Your task to perform on an android device: Clear the shopping cart on ebay. Search for "dell xps" on ebay, select the first entry, add it to the cart, then select checkout. Image 0: 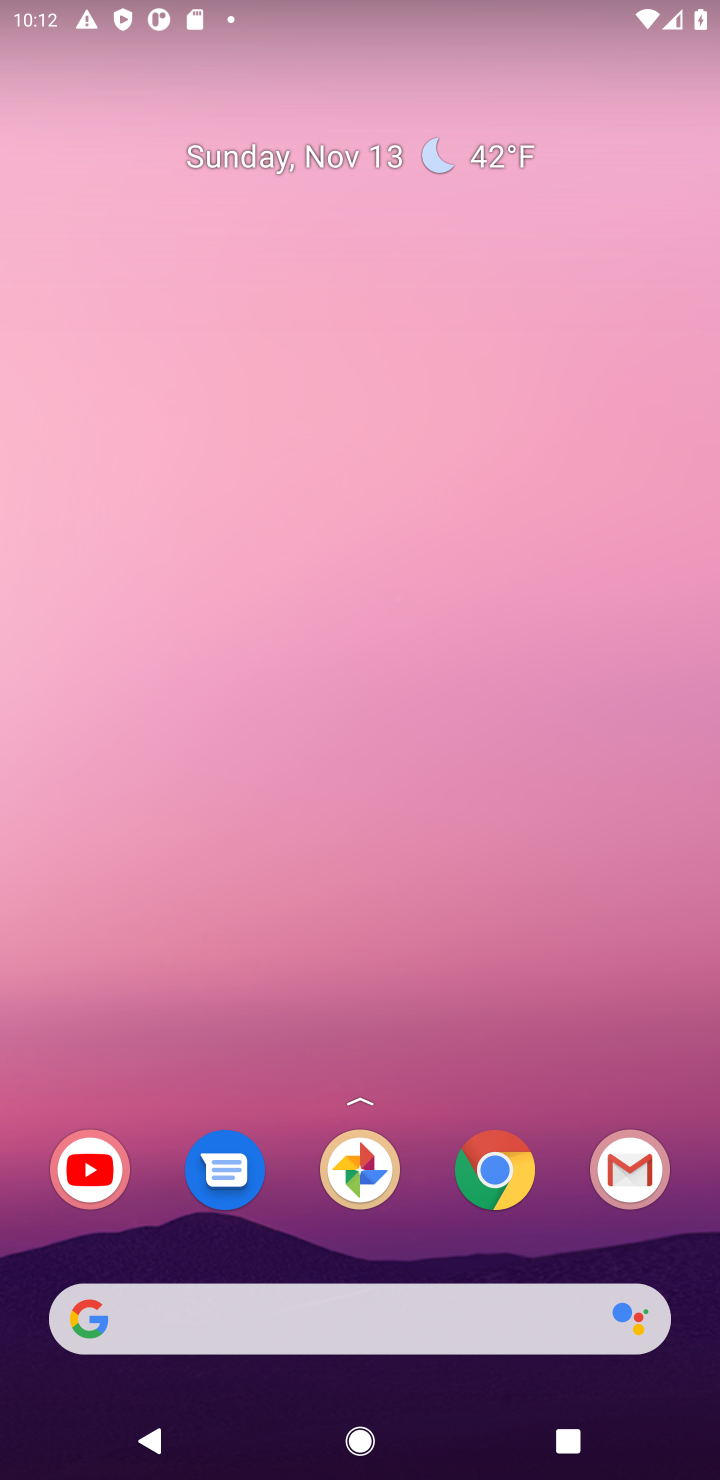
Step 0: drag from (289, 505) to (304, 21)
Your task to perform on an android device: Clear the shopping cart on ebay. Search for "dell xps" on ebay, select the first entry, add it to the cart, then select checkout. Image 1: 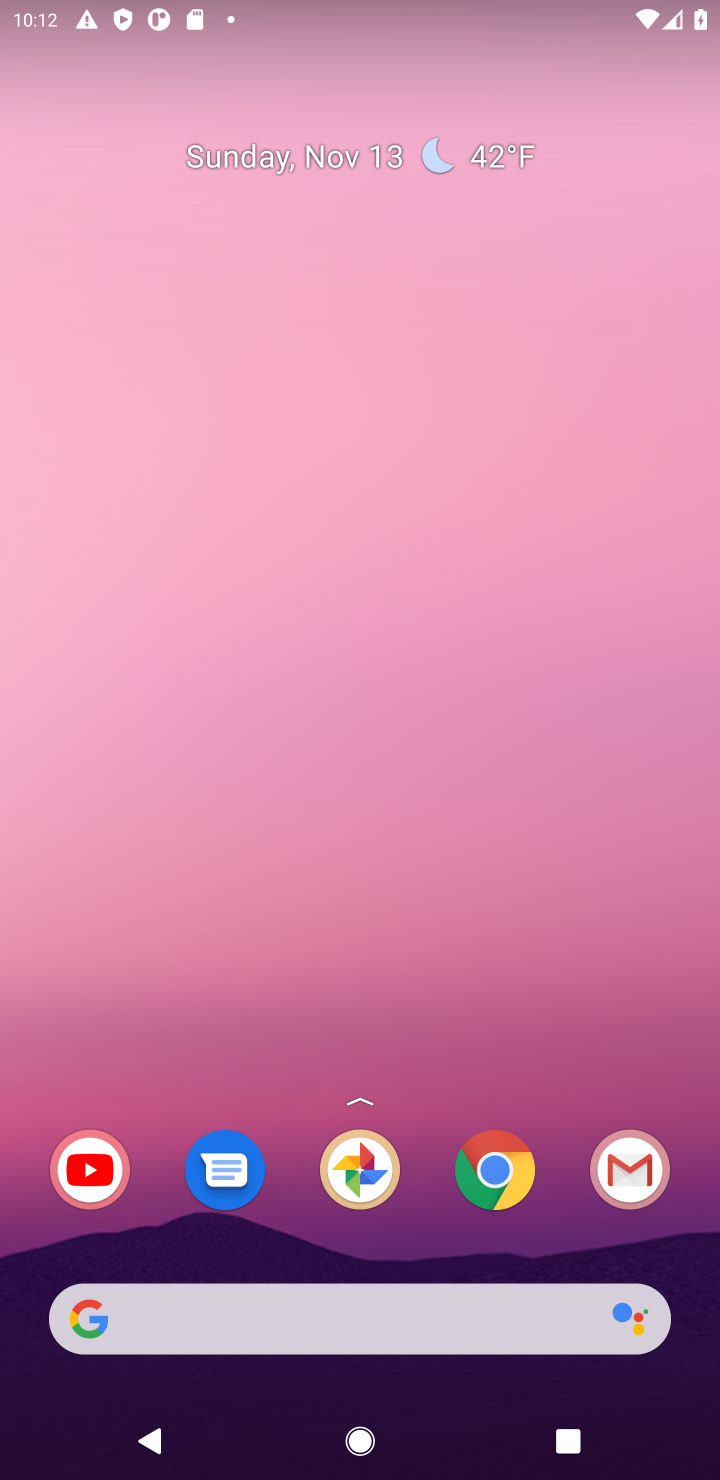
Step 1: drag from (354, 464) to (429, 3)
Your task to perform on an android device: Clear the shopping cart on ebay. Search for "dell xps" on ebay, select the first entry, add it to the cart, then select checkout. Image 2: 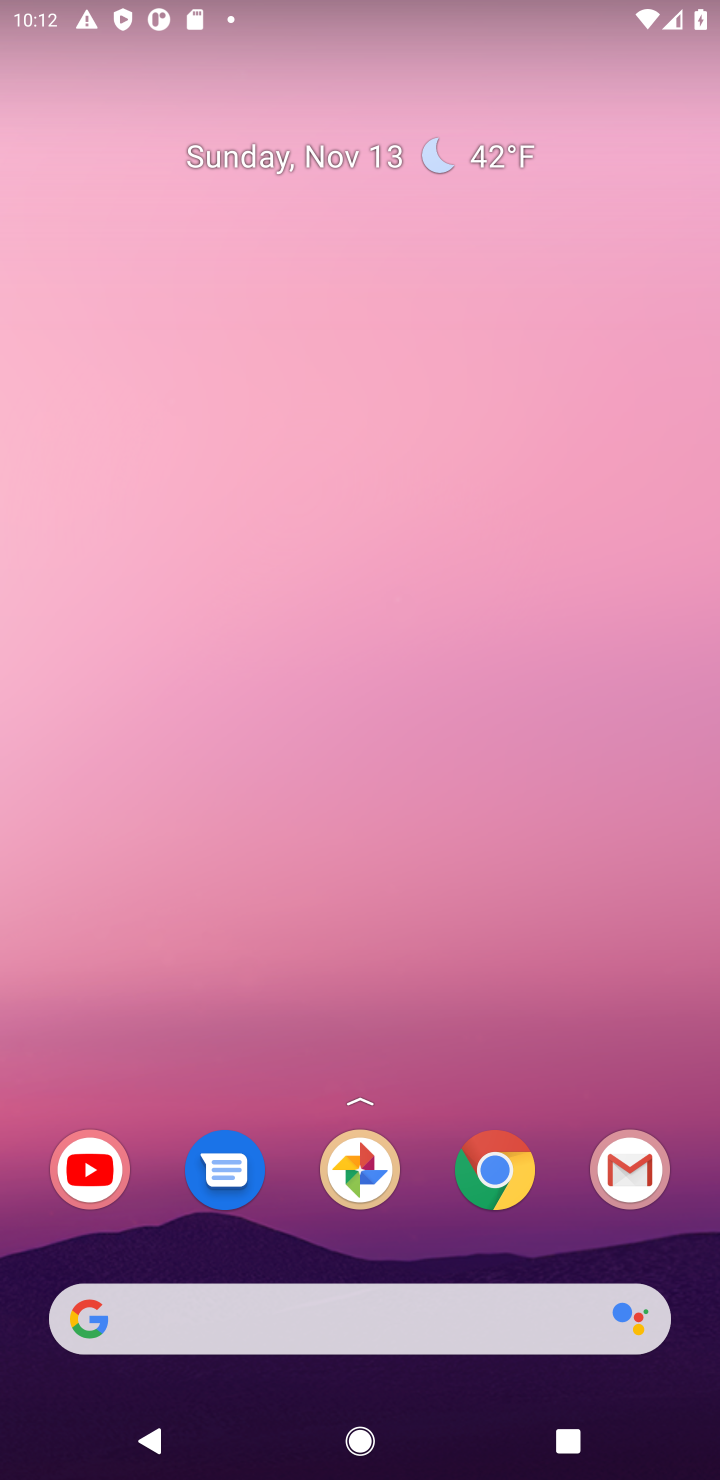
Step 2: drag from (348, 581) to (270, 4)
Your task to perform on an android device: Clear the shopping cart on ebay. Search for "dell xps" on ebay, select the first entry, add it to the cart, then select checkout. Image 3: 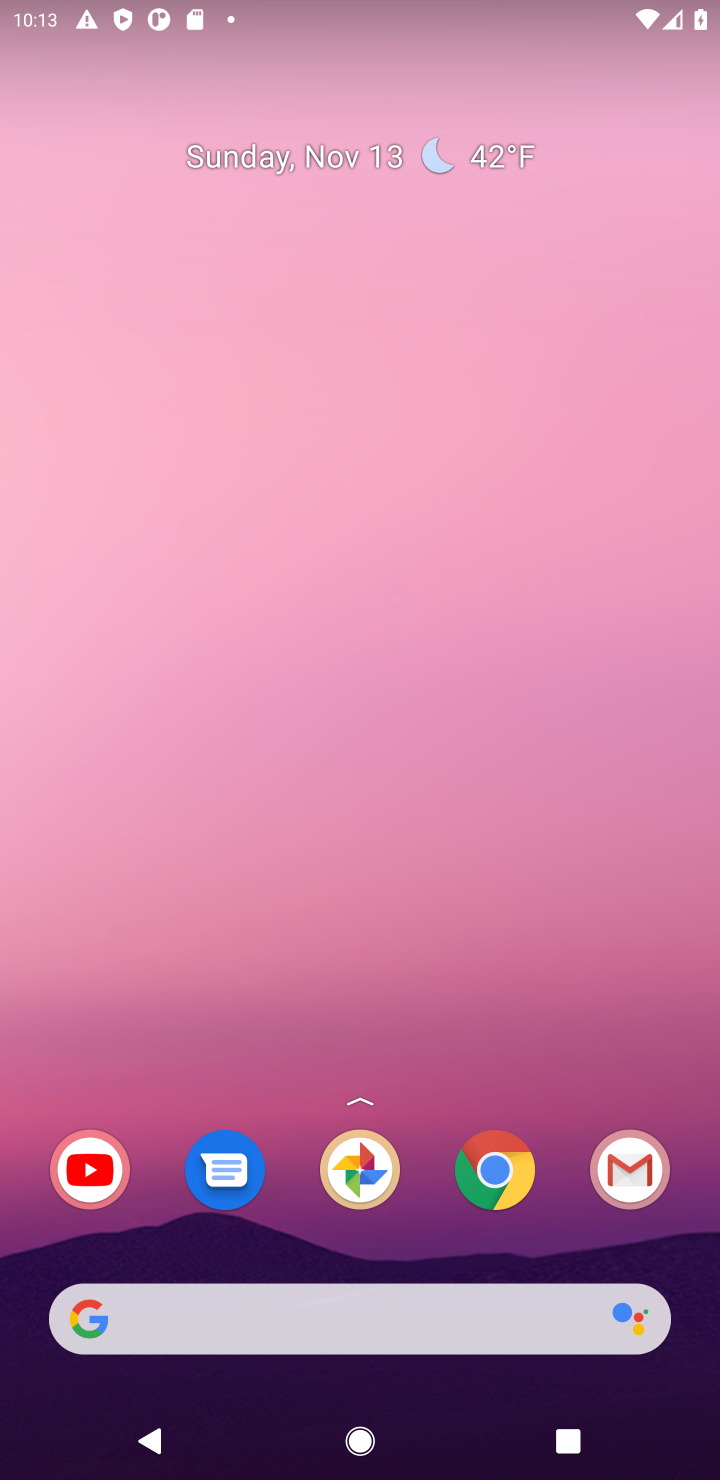
Step 3: drag from (249, 949) to (473, 4)
Your task to perform on an android device: Clear the shopping cart on ebay. Search for "dell xps" on ebay, select the first entry, add it to the cart, then select checkout. Image 4: 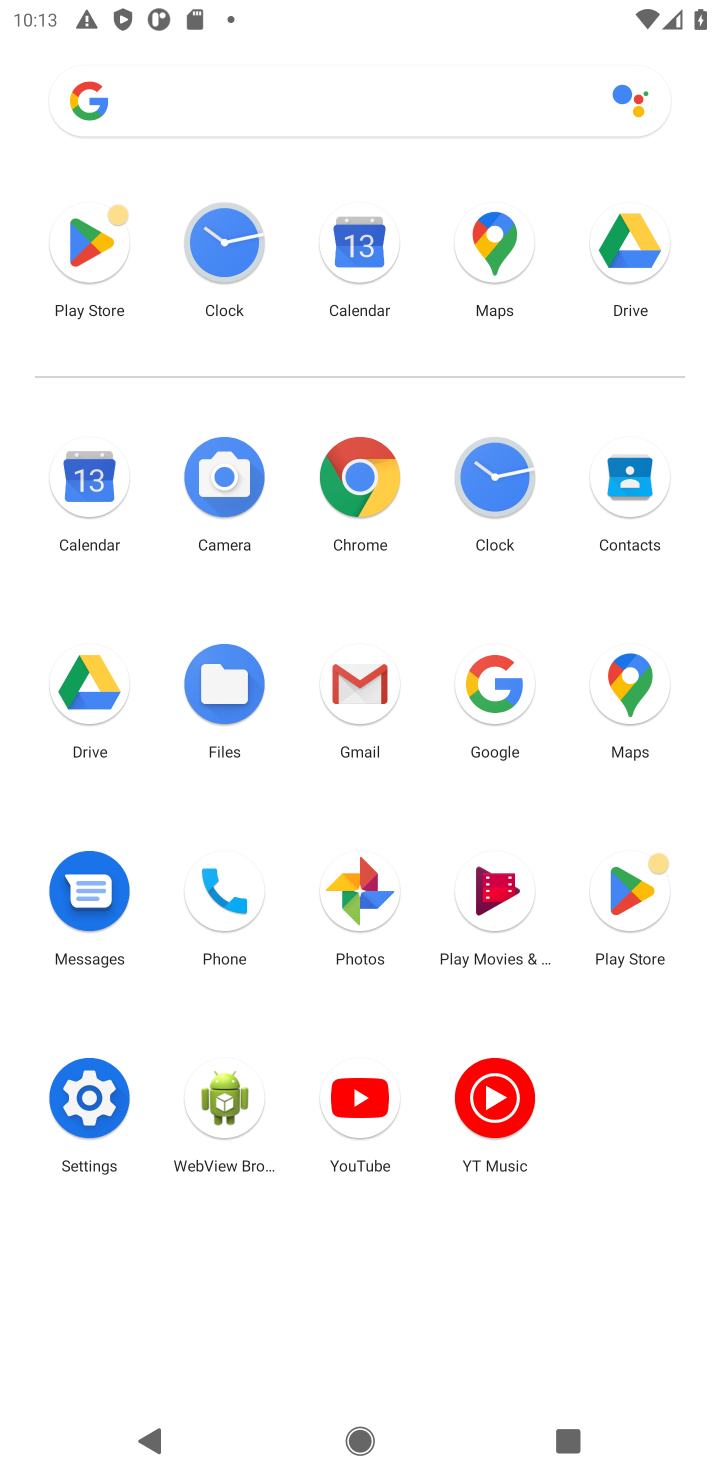
Step 4: click (358, 478)
Your task to perform on an android device: Clear the shopping cart on ebay. Search for "dell xps" on ebay, select the first entry, add it to the cart, then select checkout. Image 5: 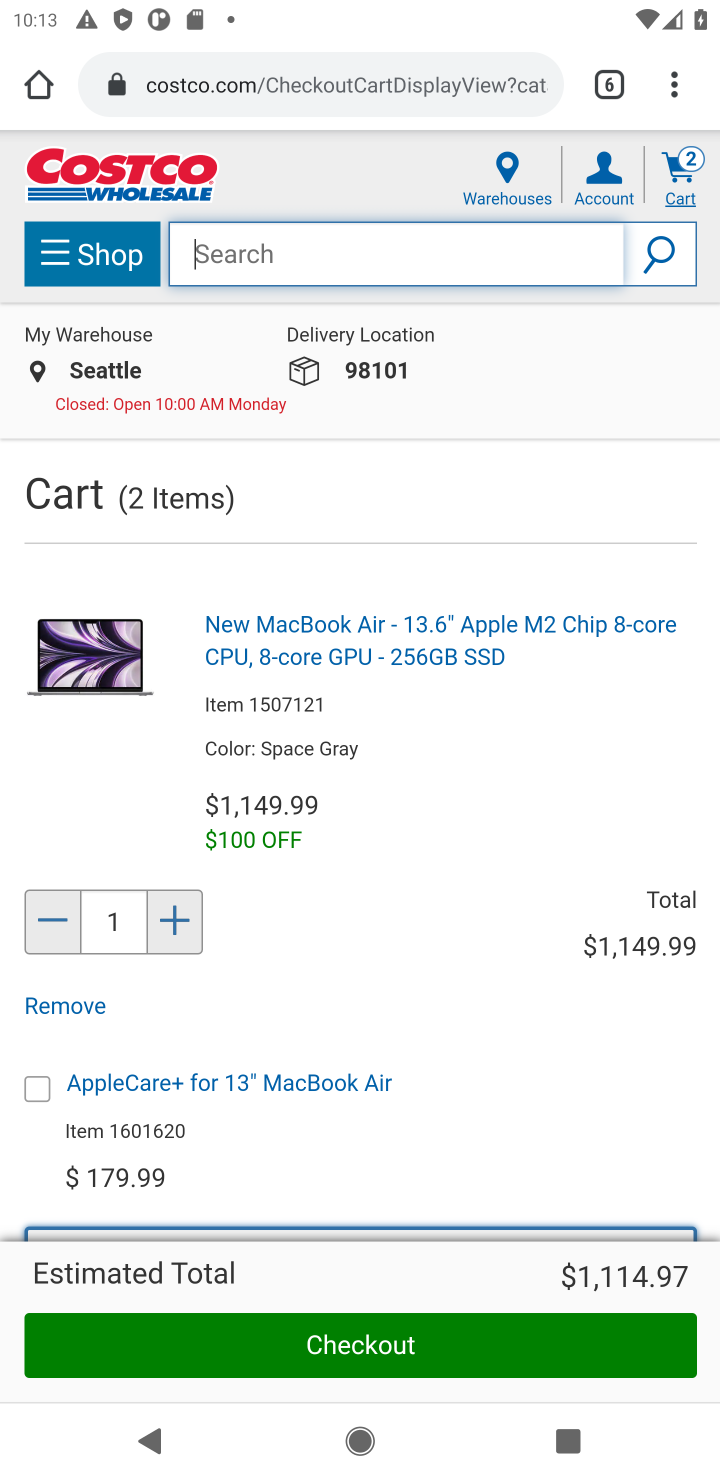
Step 5: click (400, 74)
Your task to perform on an android device: Clear the shopping cart on ebay. Search for "dell xps" on ebay, select the first entry, add it to the cart, then select checkout. Image 6: 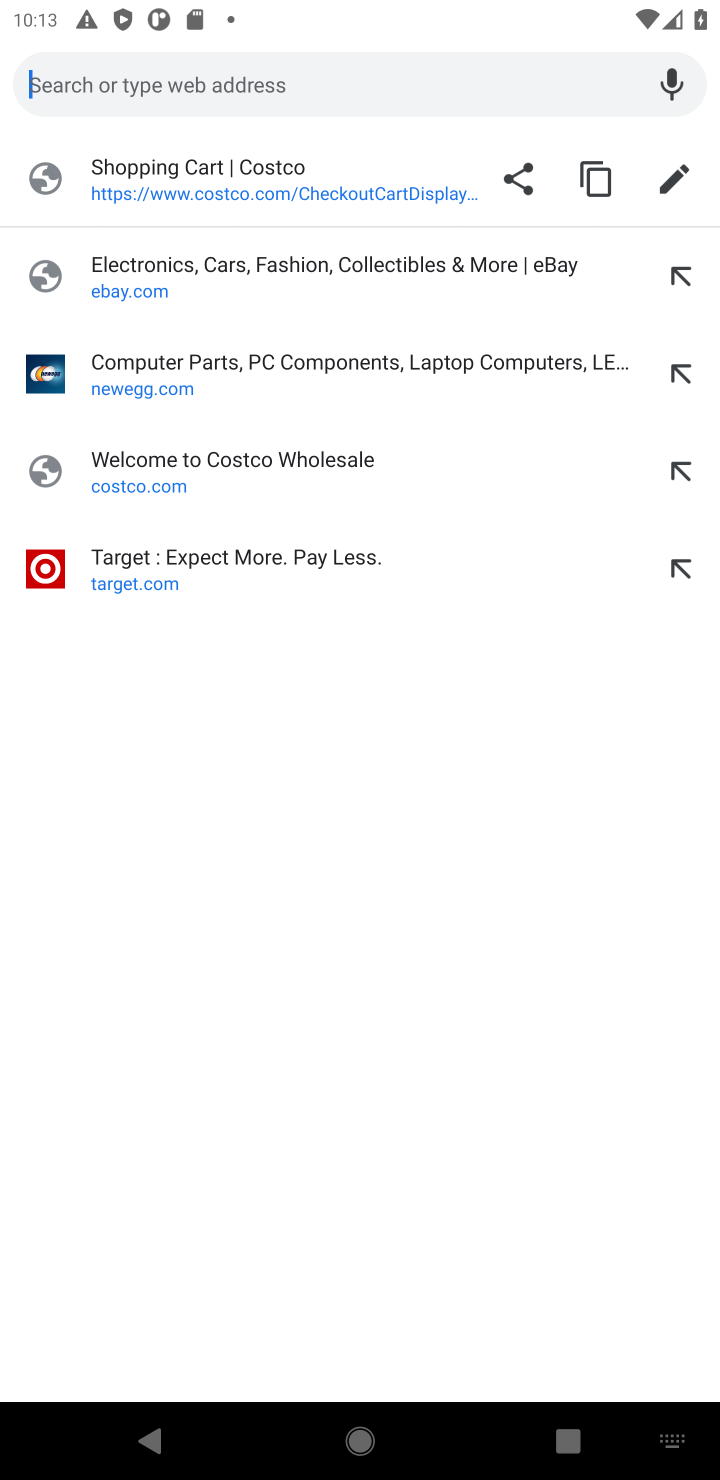
Step 6: press enter
Your task to perform on an android device: Clear the shopping cart on ebay. Search for "dell xps" on ebay, select the first entry, add it to the cart, then select checkout. Image 7: 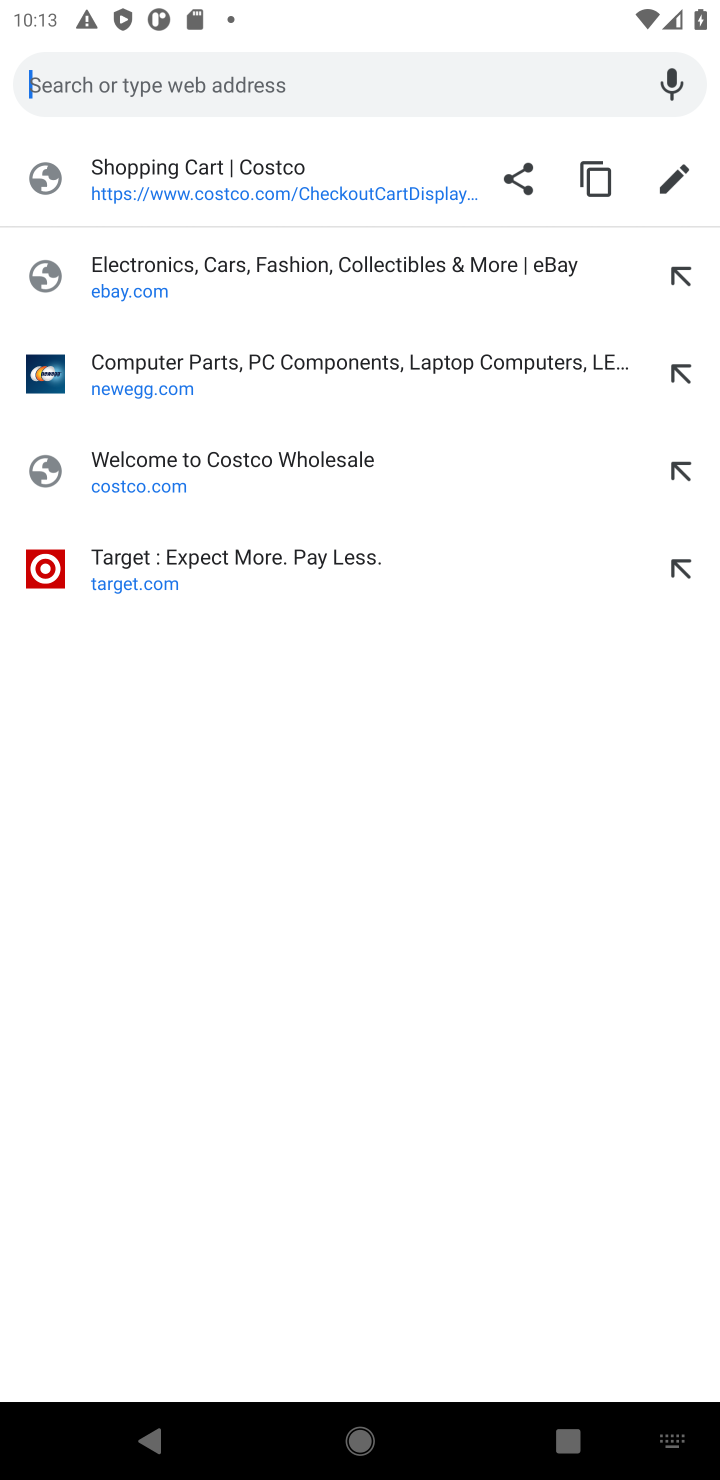
Step 7: type "ebay"
Your task to perform on an android device: Clear the shopping cart on ebay. Search for "dell xps" on ebay, select the first entry, add it to the cart, then select checkout. Image 8: 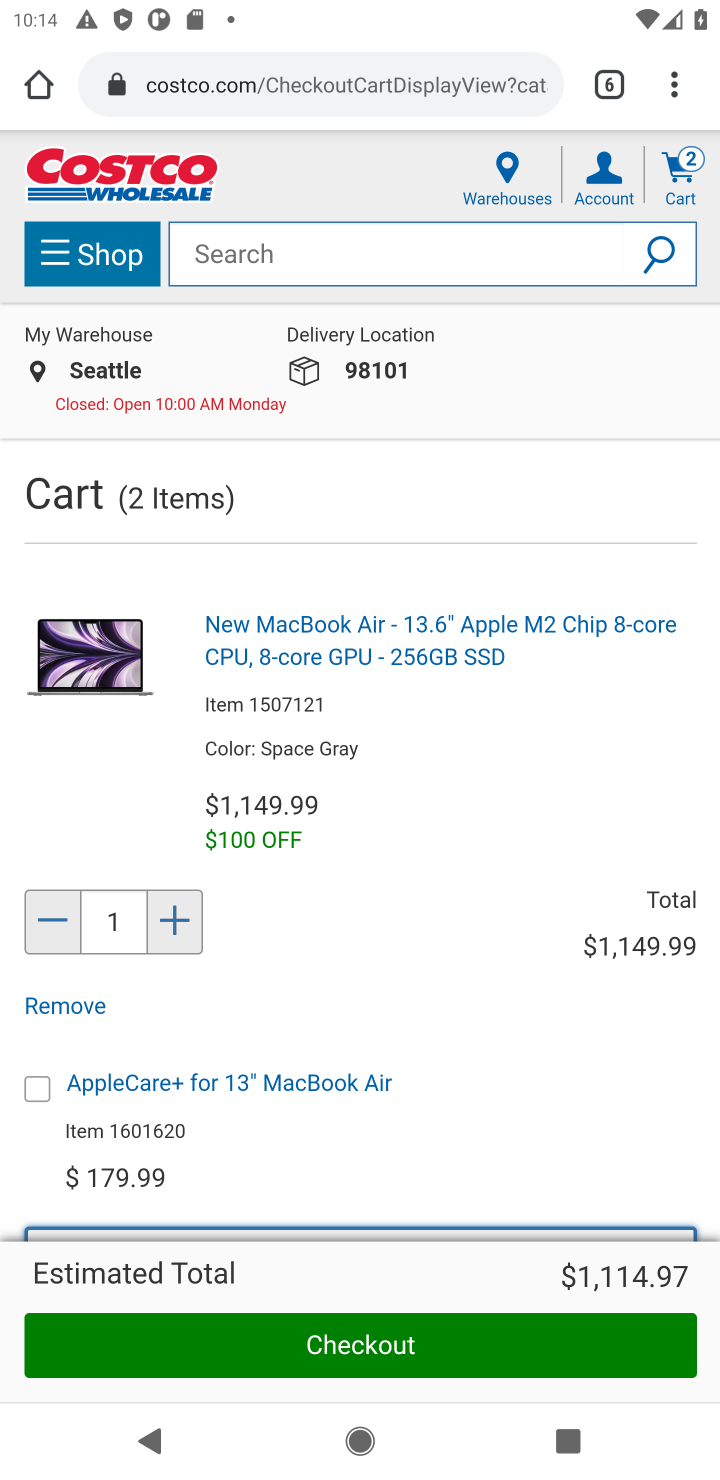
Step 8: click (337, 63)
Your task to perform on an android device: Clear the shopping cart on ebay. Search for "dell xps" on ebay, select the first entry, add it to the cart, then select checkout. Image 9: 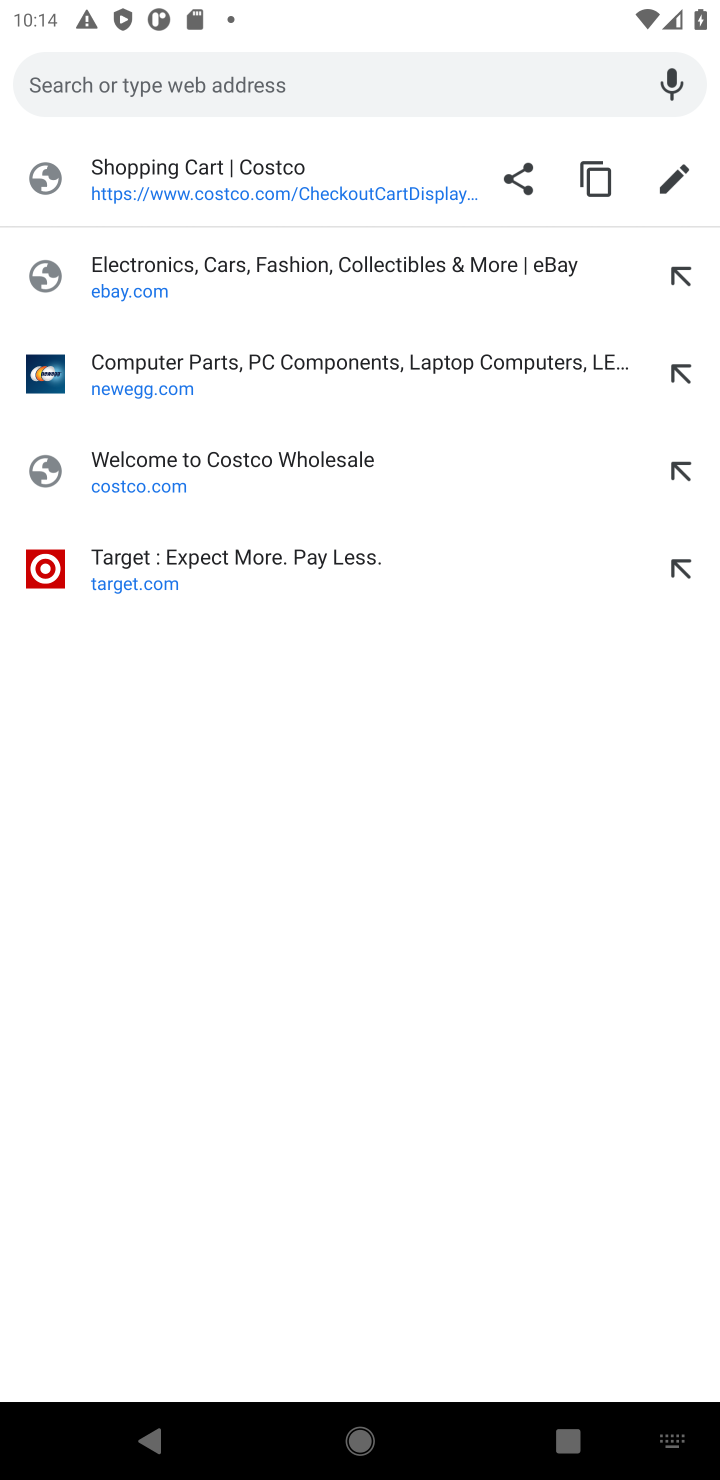
Step 9: type "ebay"
Your task to perform on an android device: Clear the shopping cart on ebay. Search for "dell xps" on ebay, select the first entry, add it to the cart, then select checkout. Image 10: 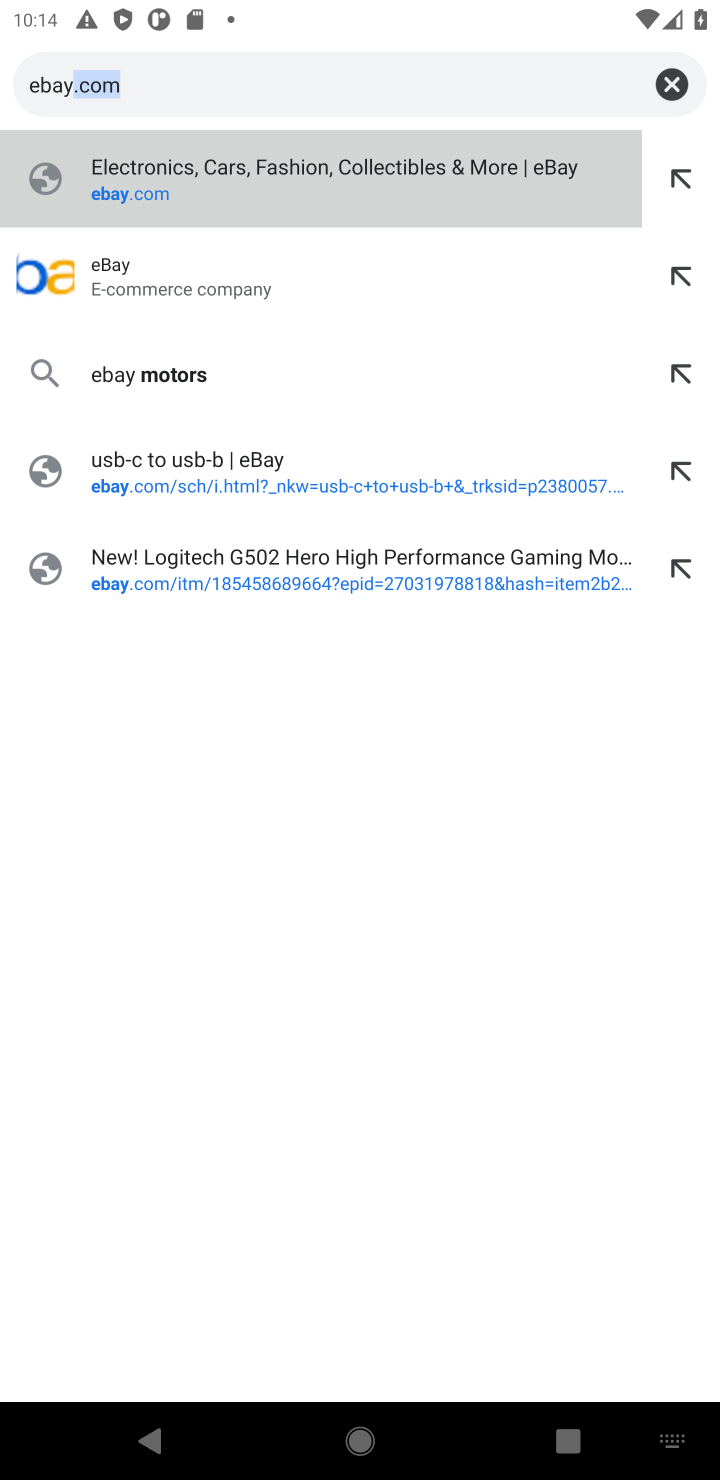
Step 10: press enter
Your task to perform on an android device: Clear the shopping cart on ebay. Search for "dell xps" on ebay, select the first entry, add it to the cart, then select checkout. Image 11: 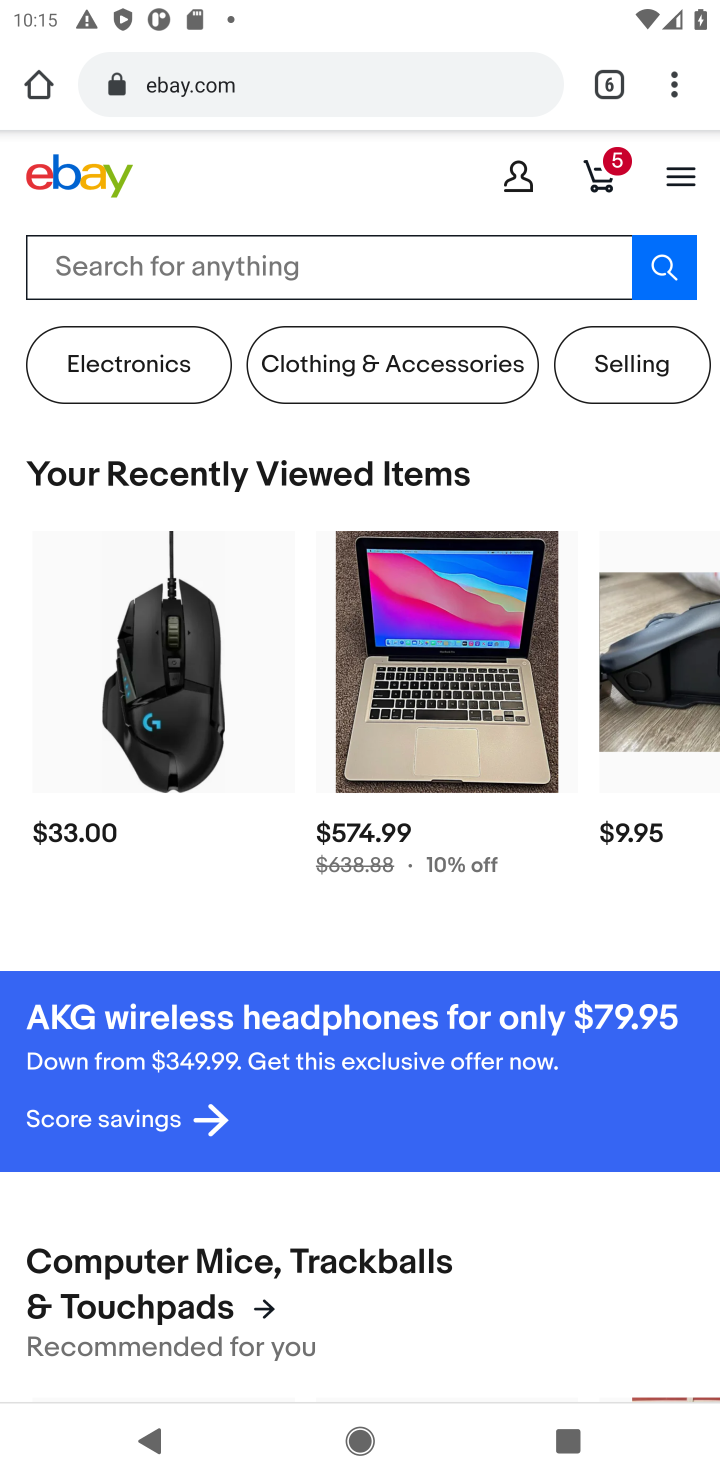
Step 11: click (145, 285)
Your task to perform on an android device: Clear the shopping cart on ebay. Search for "dell xps" on ebay, select the first entry, add it to the cart, then select checkout. Image 12: 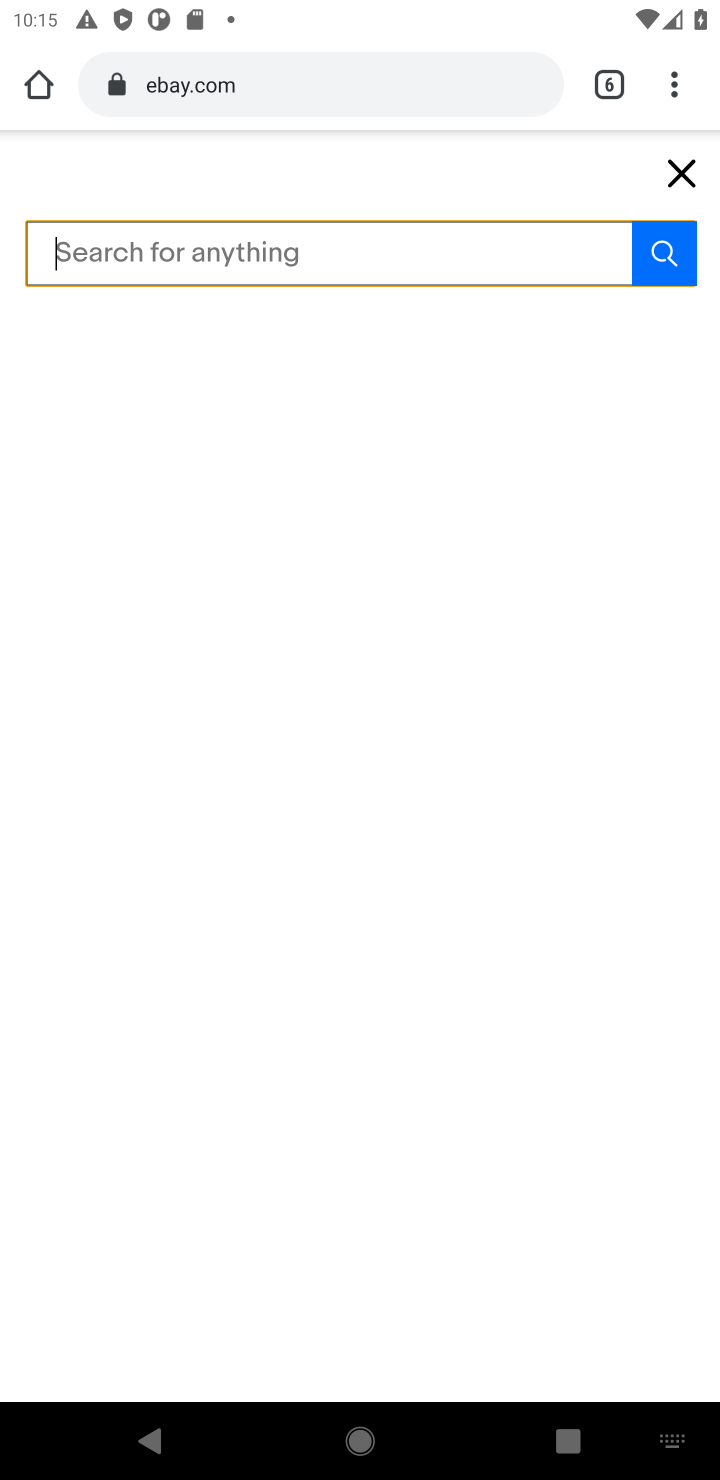
Step 12: type "dell xps"
Your task to perform on an android device: Clear the shopping cart on ebay. Search for "dell xps" on ebay, select the first entry, add it to the cart, then select checkout. Image 13: 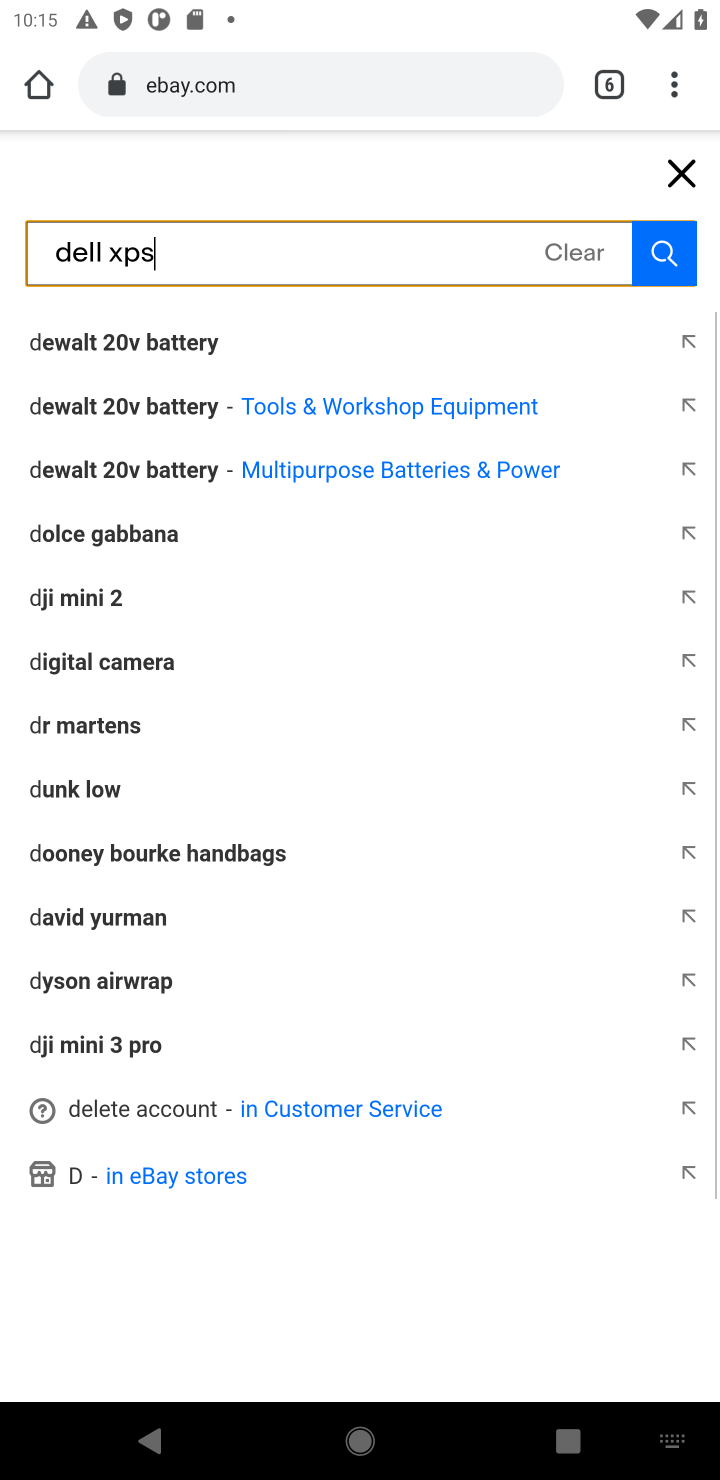
Step 13: press enter
Your task to perform on an android device: Clear the shopping cart on ebay. Search for "dell xps" on ebay, select the first entry, add it to the cart, then select checkout. Image 14: 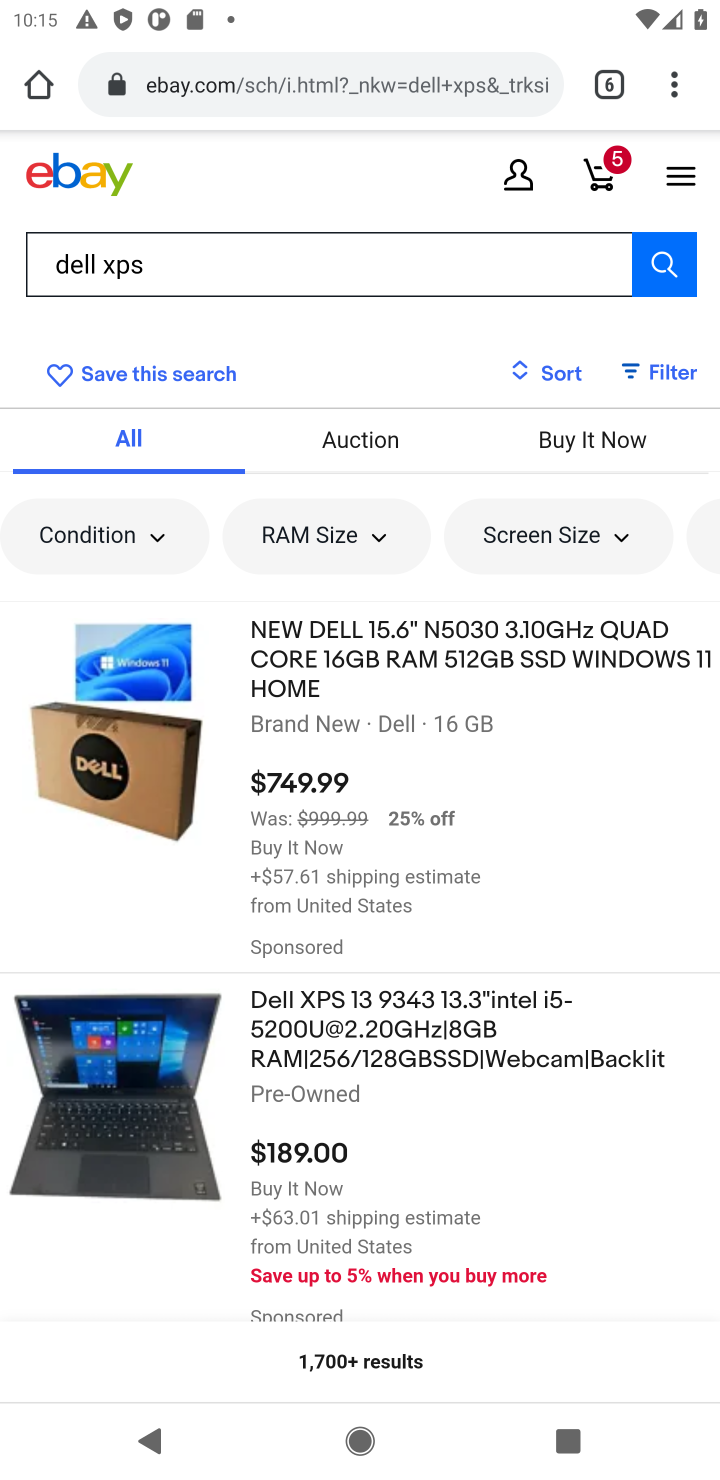
Step 14: click (418, 638)
Your task to perform on an android device: Clear the shopping cart on ebay. Search for "dell xps" on ebay, select the first entry, add it to the cart, then select checkout. Image 15: 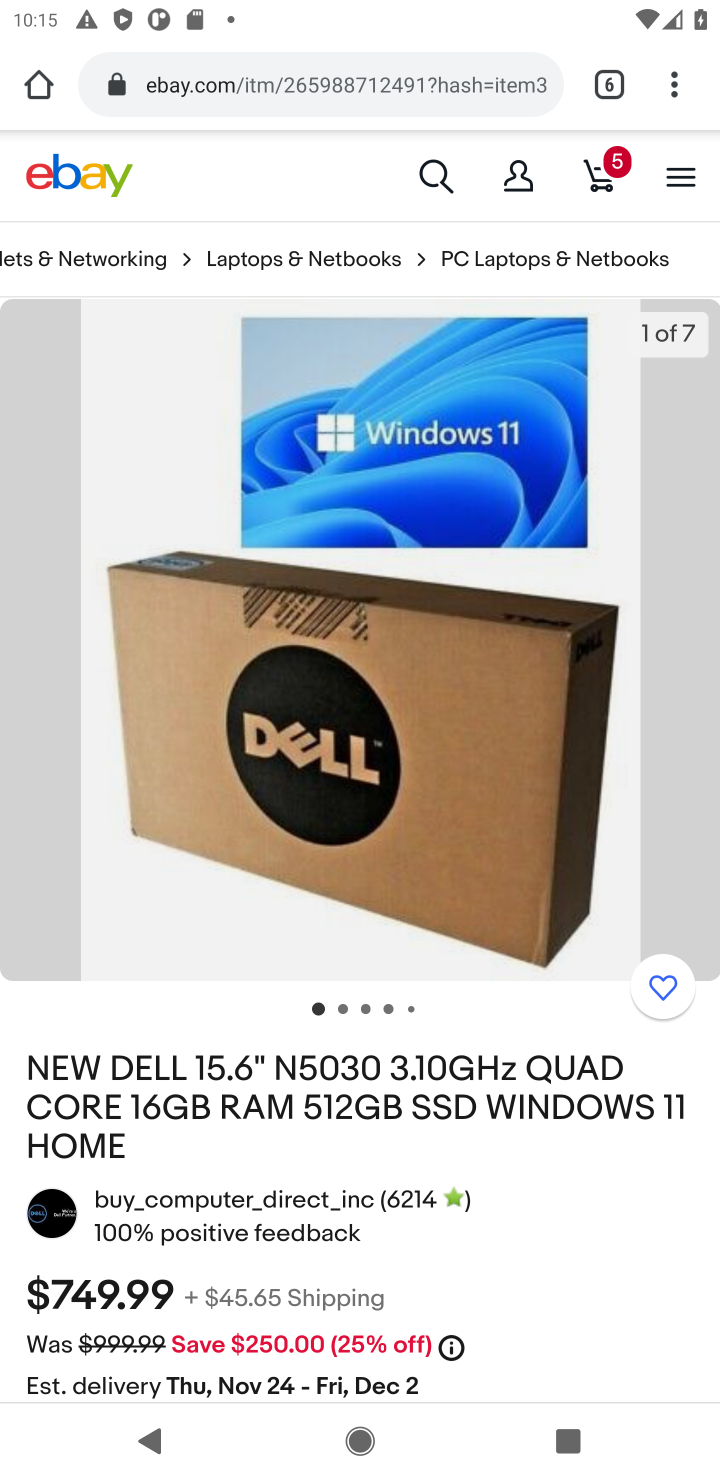
Step 15: drag from (261, 820) to (285, 405)
Your task to perform on an android device: Clear the shopping cart on ebay. Search for "dell xps" on ebay, select the first entry, add it to the cart, then select checkout. Image 16: 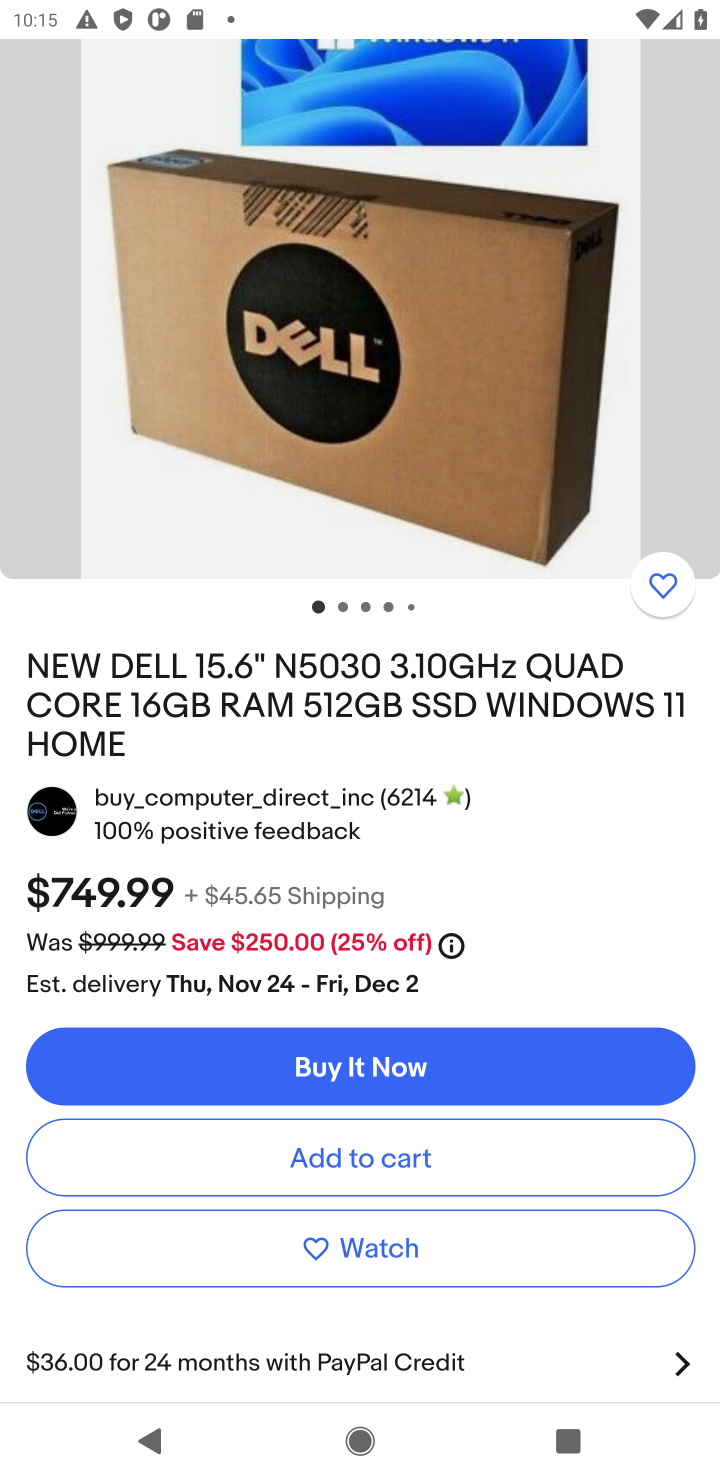
Step 16: click (357, 1175)
Your task to perform on an android device: Clear the shopping cart on ebay. Search for "dell xps" on ebay, select the first entry, add it to the cart, then select checkout. Image 17: 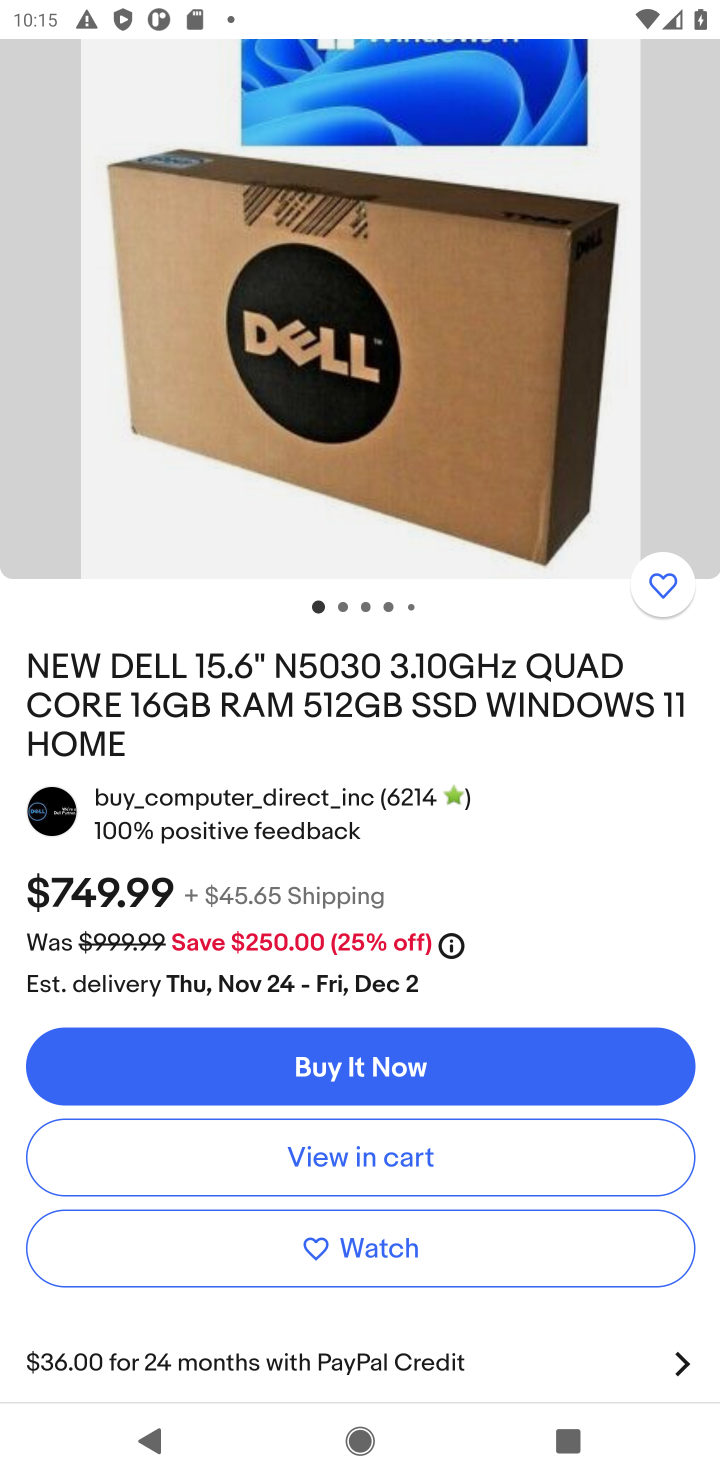
Step 17: click (355, 1162)
Your task to perform on an android device: Clear the shopping cart on ebay. Search for "dell xps" on ebay, select the first entry, add it to the cart, then select checkout. Image 18: 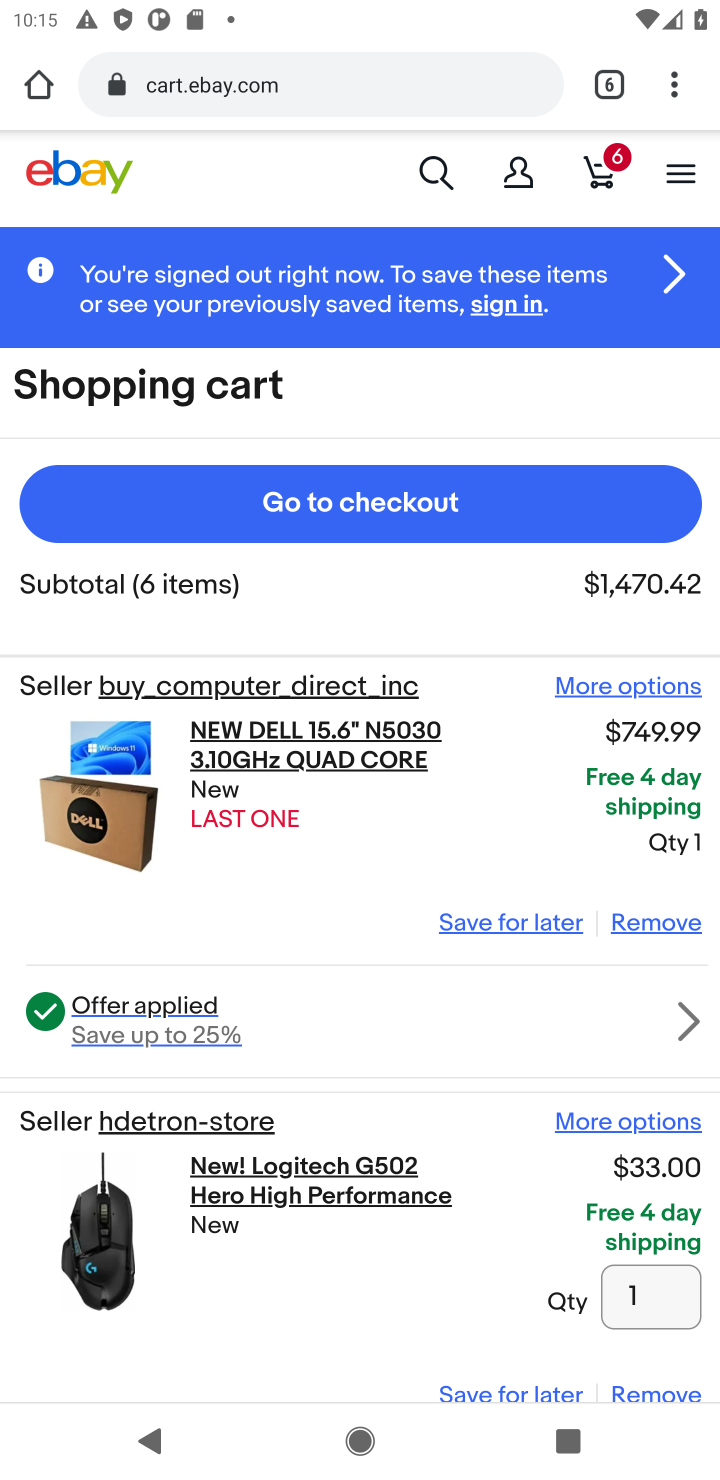
Step 18: click (394, 510)
Your task to perform on an android device: Clear the shopping cart on ebay. Search for "dell xps" on ebay, select the first entry, add it to the cart, then select checkout. Image 19: 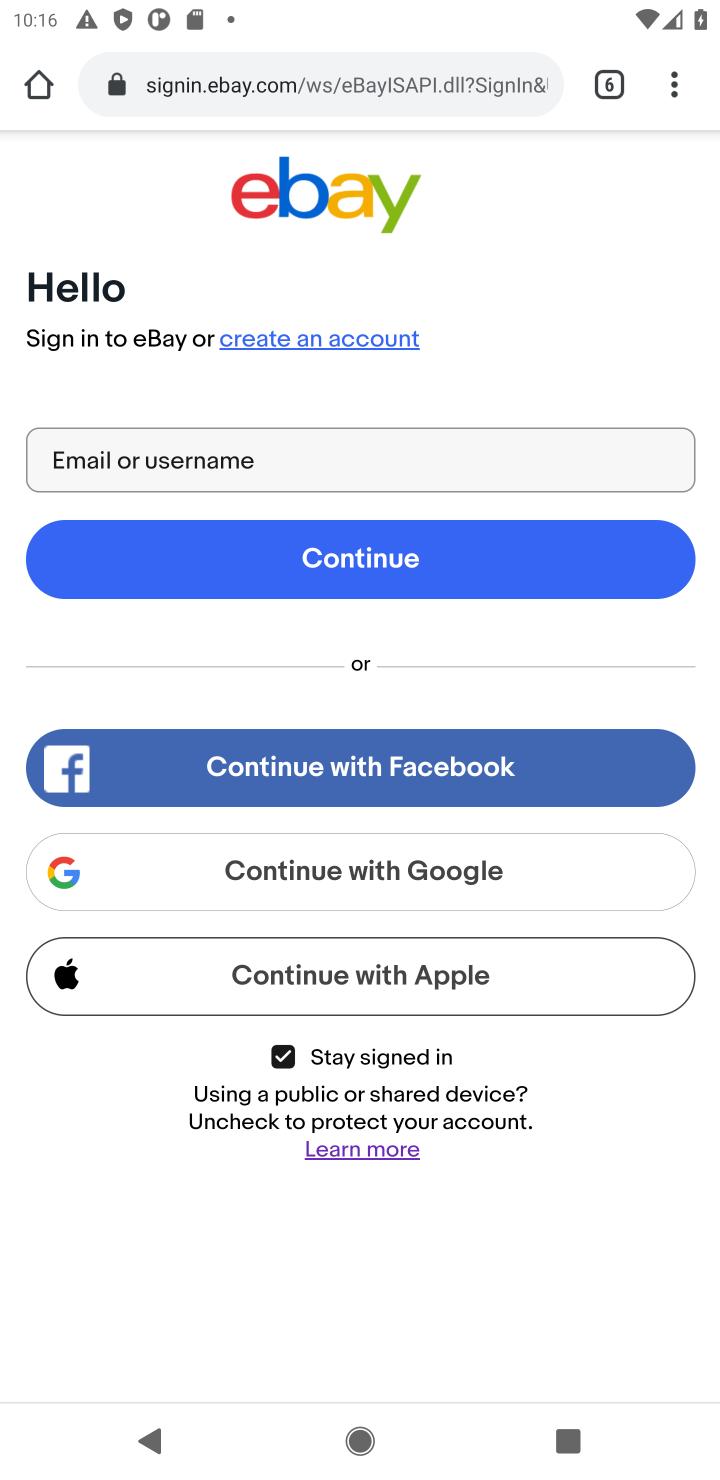
Step 19: task complete